Your task to perform on an android device: show emergency info Image 0: 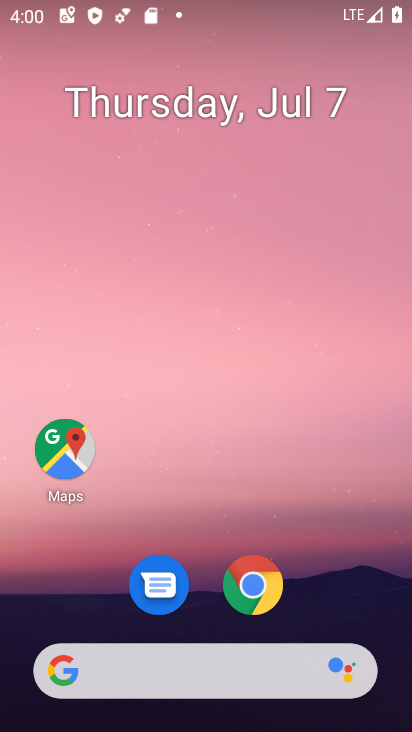
Step 0: drag from (304, 476) to (246, 33)
Your task to perform on an android device: show emergency info Image 1: 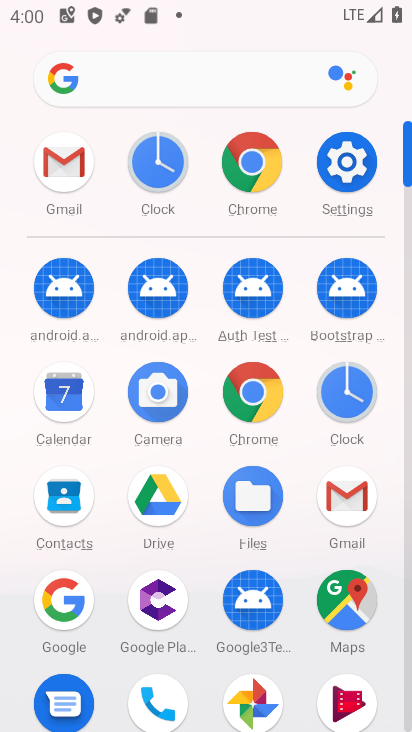
Step 1: click (352, 151)
Your task to perform on an android device: show emergency info Image 2: 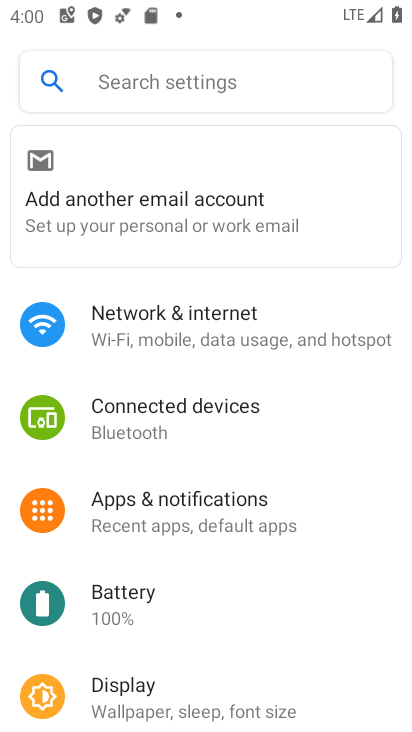
Step 2: drag from (214, 603) to (252, 93)
Your task to perform on an android device: show emergency info Image 3: 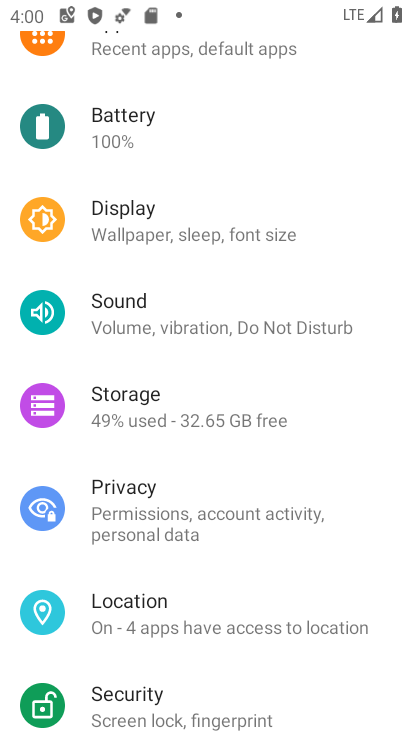
Step 3: drag from (242, 558) to (228, 98)
Your task to perform on an android device: show emergency info Image 4: 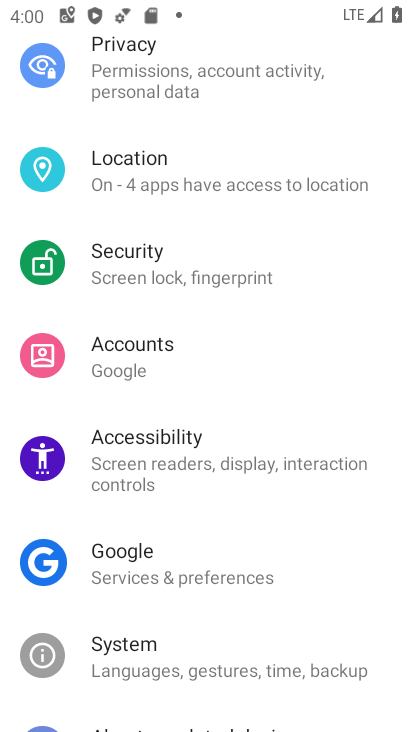
Step 4: drag from (204, 460) to (206, 259)
Your task to perform on an android device: show emergency info Image 5: 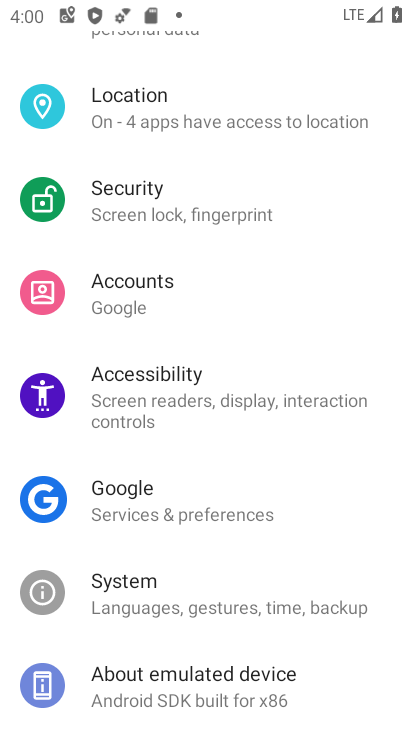
Step 5: click (206, 683)
Your task to perform on an android device: show emergency info Image 6: 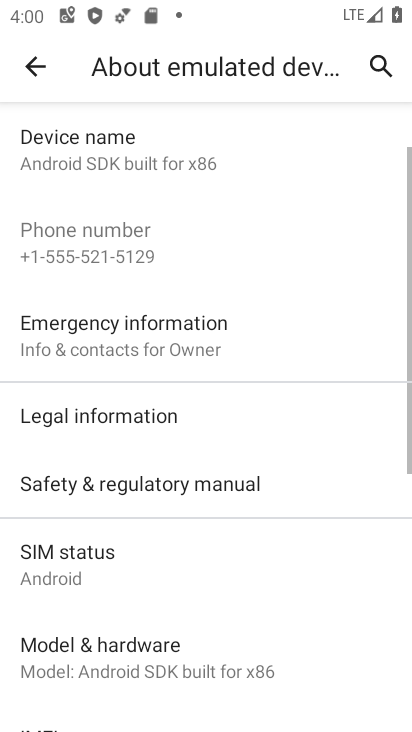
Step 6: click (207, 334)
Your task to perform on an android device: show emergency info Image 7: 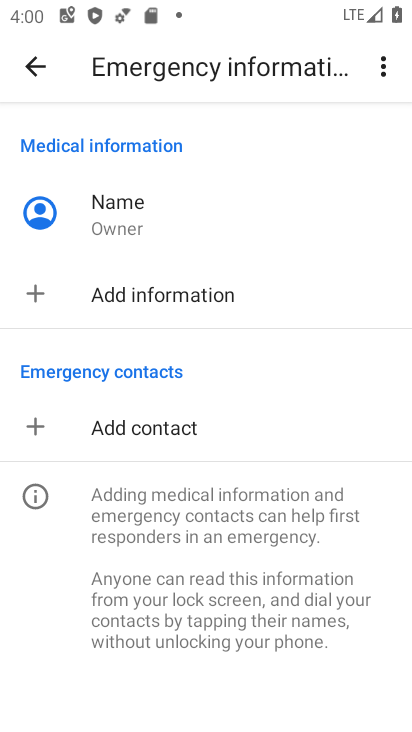
Step 7: task complete